Your task to perform on an android device: What's the weather going to be this weekend? Image 0: 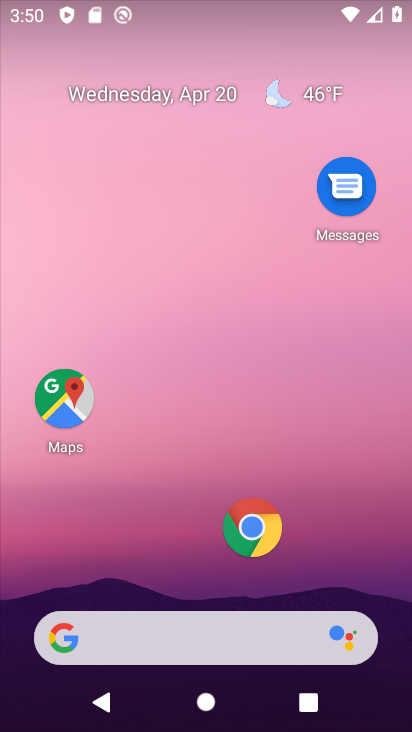
Step 0: click (268, 97)
Your task to perform on an android device: What's the weather going to be this weekend? Image 1: 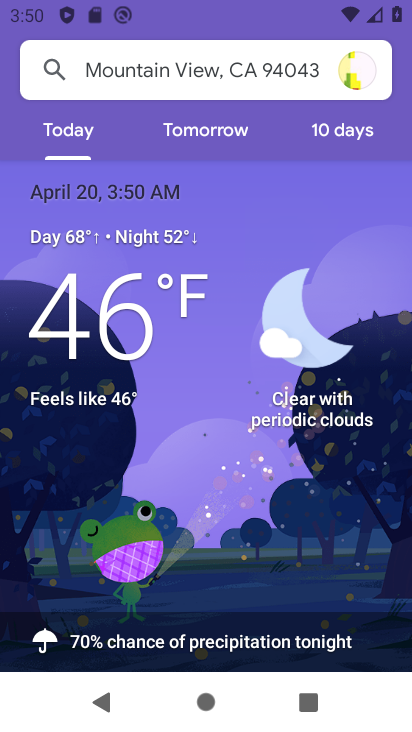
Step 1: click (322, 132)
Your task to perform on an android device: What's the weather going to be this weekend? Image 2: 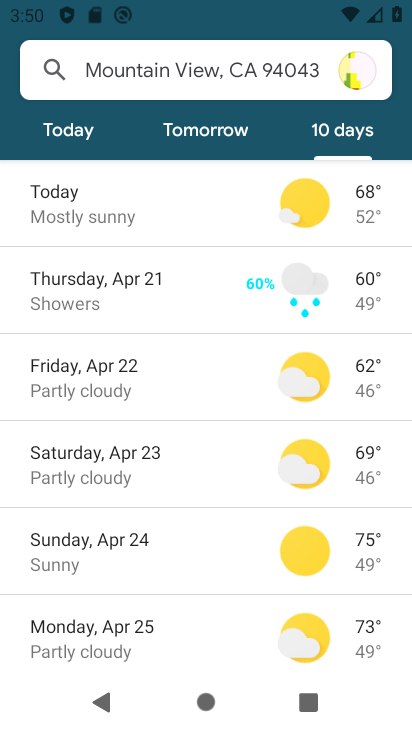
Step 2: click (130, 468)
Your task to perform on an android device: What's the weather going to be this weekend? Image 3: 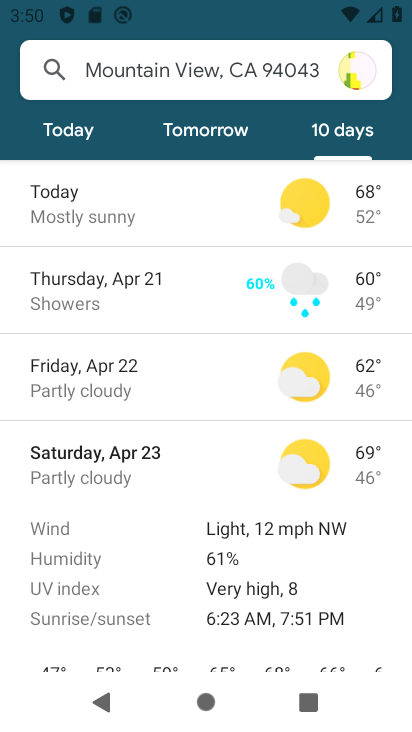
Step 3: task complete